Your task to perform on an android device: Search for Italian restaurants on Maps Image 0: 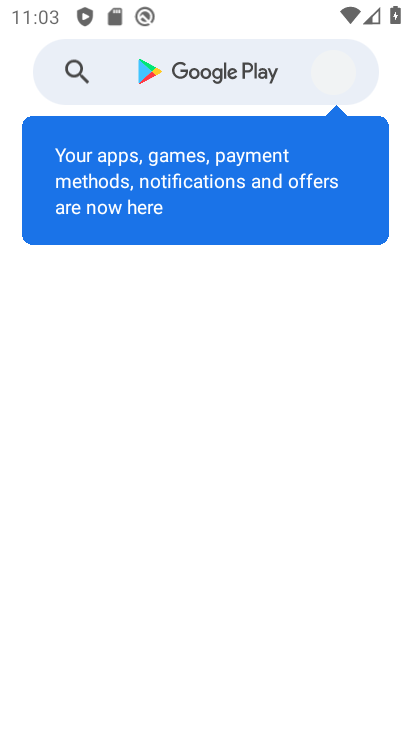
Step 0: press home button
Your task to perform on an android device: Search for Italian restaurants on Maps Image 1: 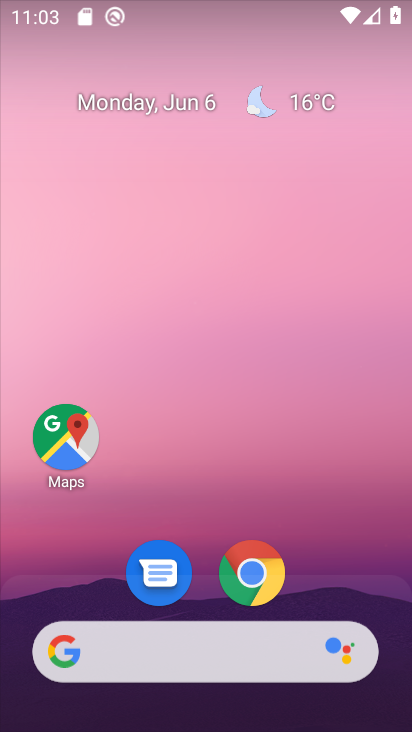
Step 1: click (51, 441)
Your task to perform on an android device: Search for Italian restaurants on Maps Image 2: 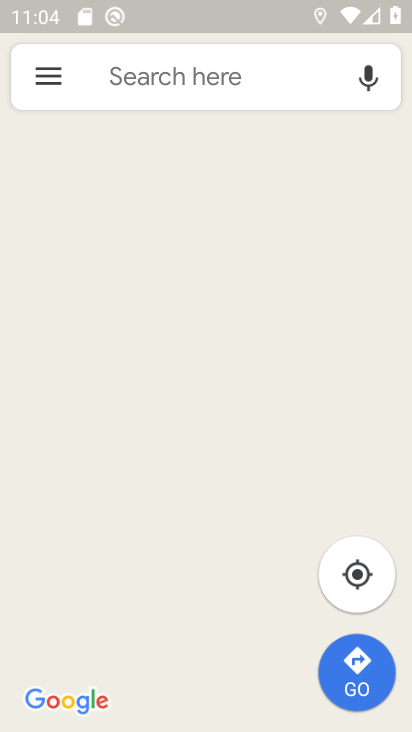
Step 2: click (237, 76)
Your task to perform on an android device: Search for Italian restaurants on Maps Image 3: 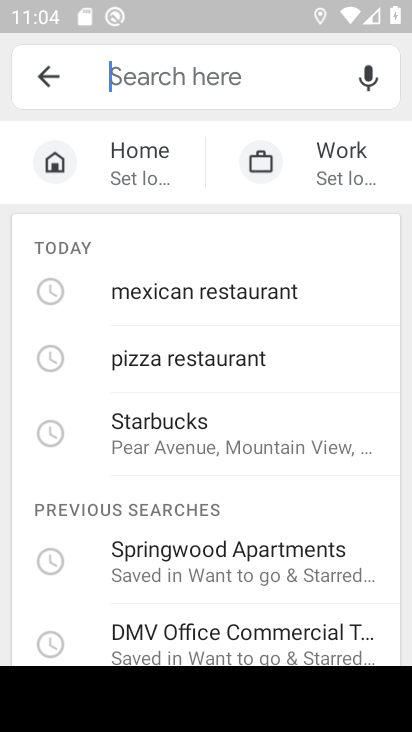
Step 3: type "italian restaurants"
Your task to perform on an android device: Search for Italian restaurants on Maps Image 4: 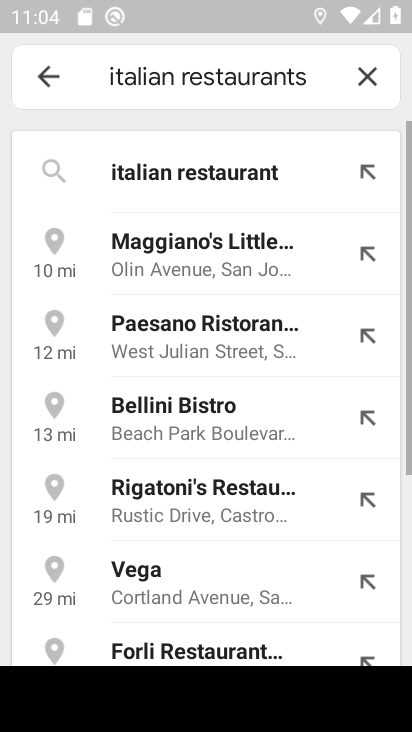
Step 4: click (202, 157)
Your task to perform on an android device: Search for Italian restaurants on Maps Image 5: 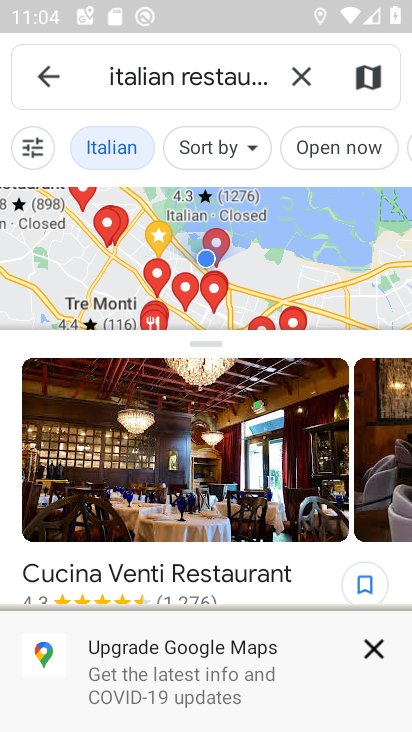
Step 5: task complete